Your task to perform on an android device: open app "Viber Messenger" Image 0: 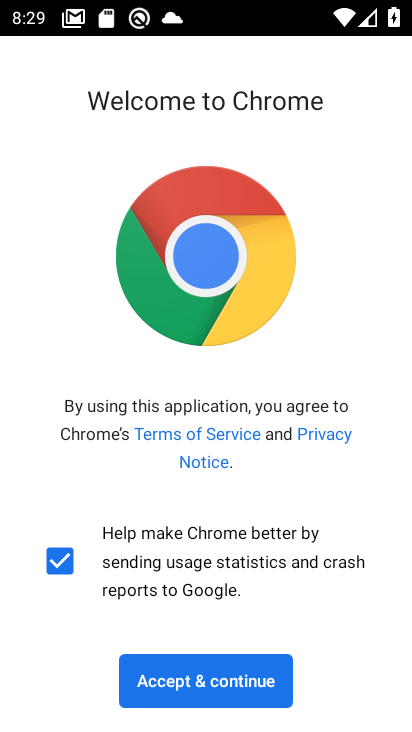
Step 0: press home button
Your task to perform on an android device: open app "Viber Messenger" Image 1: 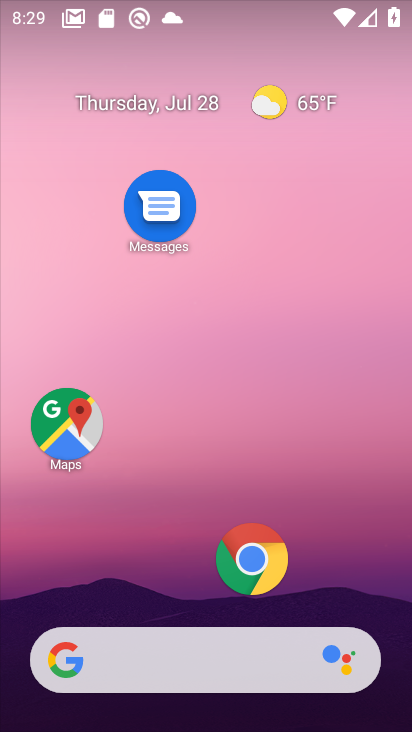
Step 1: drag from (187, 582) to (227, 150)
Your task to perform on an android device: open app "Viber Messenger" Image 2: 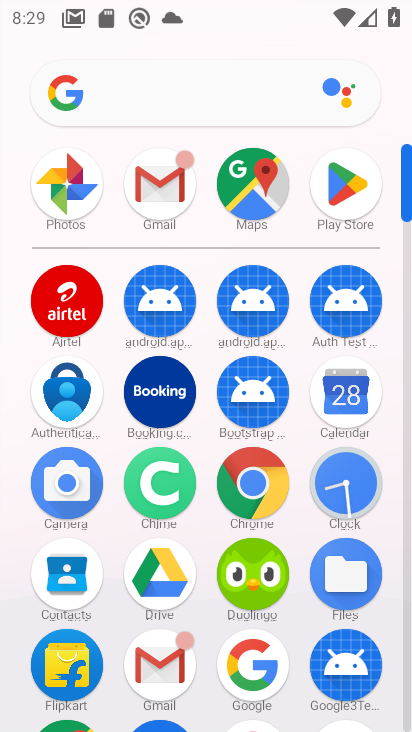
Step 2: click (356, 218)
Your task to perform on an android device: open app "Viber Messenger" Image 3: 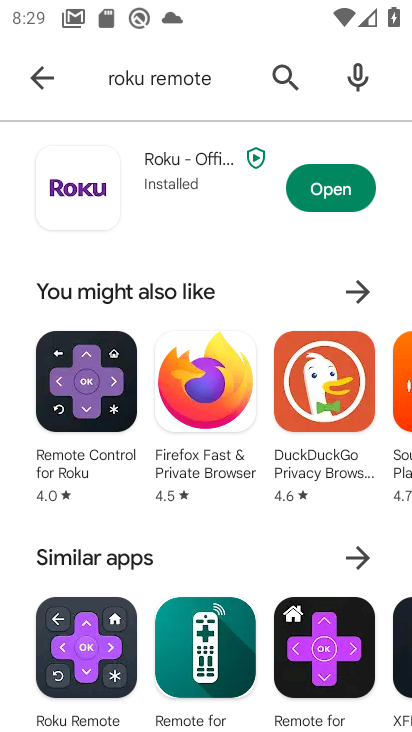
Step 3: click (192, 97)
Your task to perform on an android device: open app "Viber Messenger" Image 4: 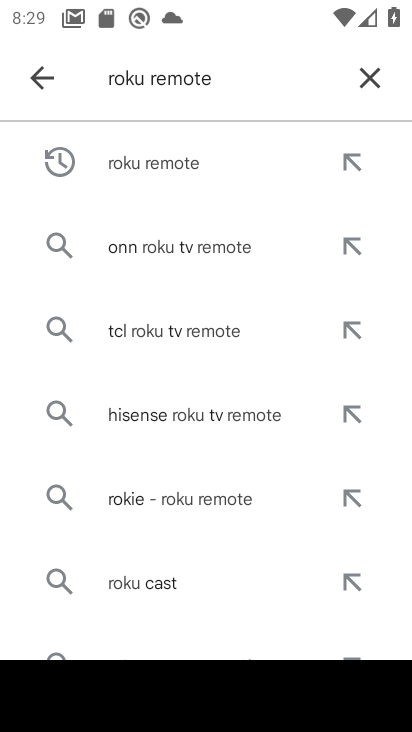
Step 4: click (358, 79)
Your task to perform on an android device: open app "Viber Messenger" Image 5: 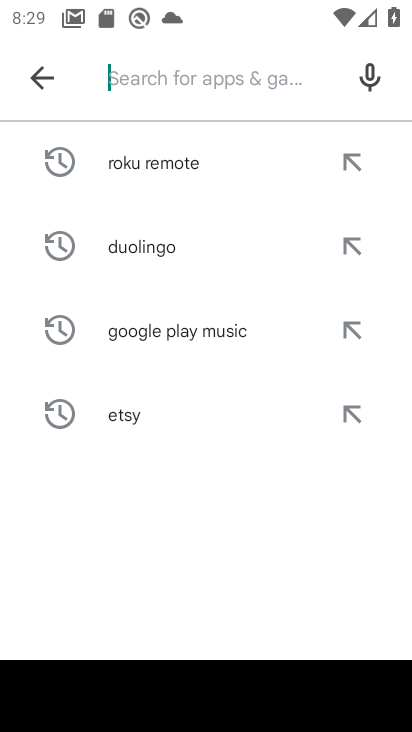
Step 5: type "Viber"
Your task to perform on an android device: open app "Viber Messenger" Image 6: 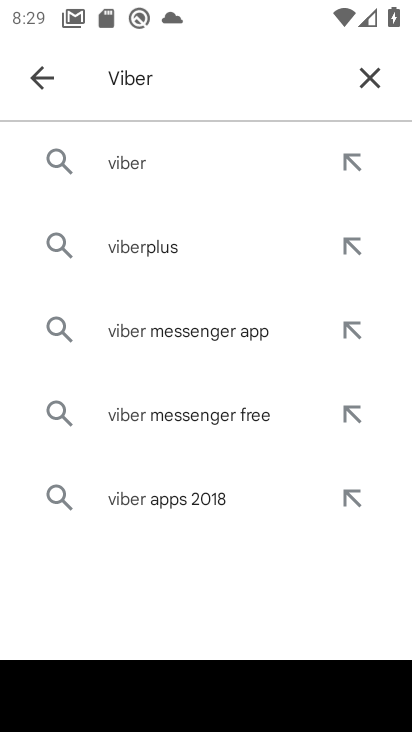
Step 6: click (171, 166)
Your task to perform on an android device: open app "Viber Messenger" Image 7: 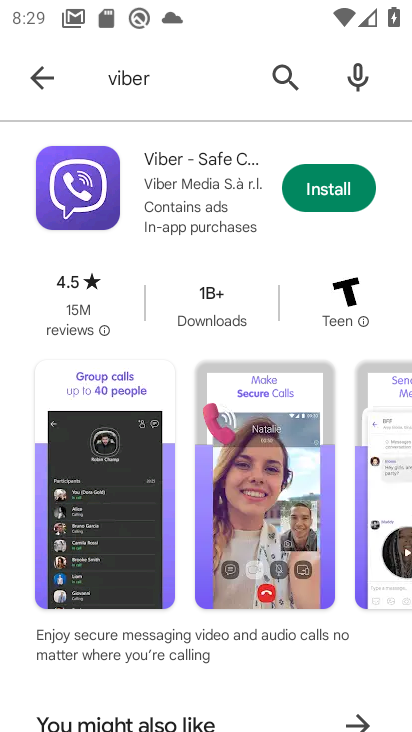
Step 7: task complete